Your task to perform on an android device: change notifications settings Image 0: 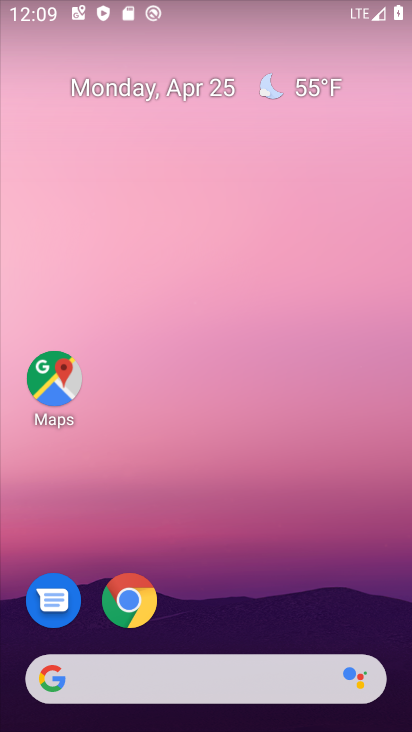
Step 0: drag from (165, 645) to (167, 168)
Your task to perform on an android device: change notifications settings Image 1: 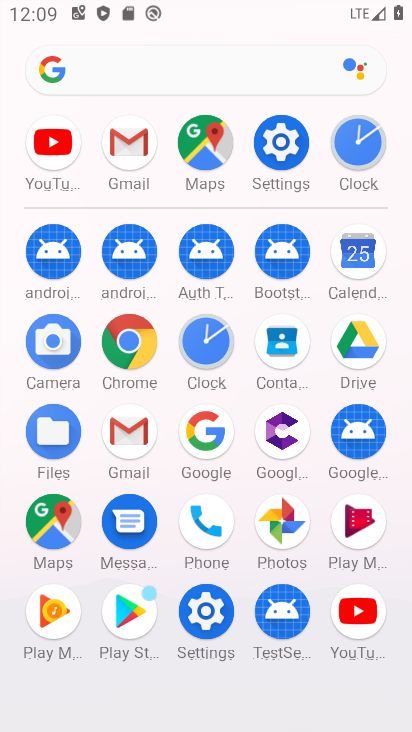
Step 1: click (273, 147)
Your task to perform on an android device: change notifications settings Image 2: 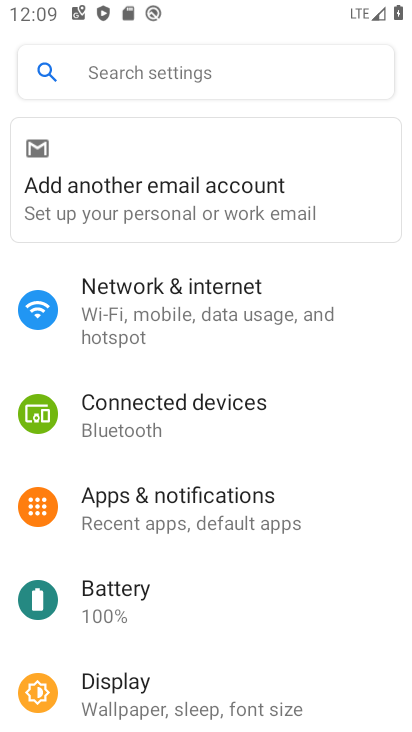
Step 2: click (158, 514)
Your task to perform on an android device: change notifications settings Image 3: 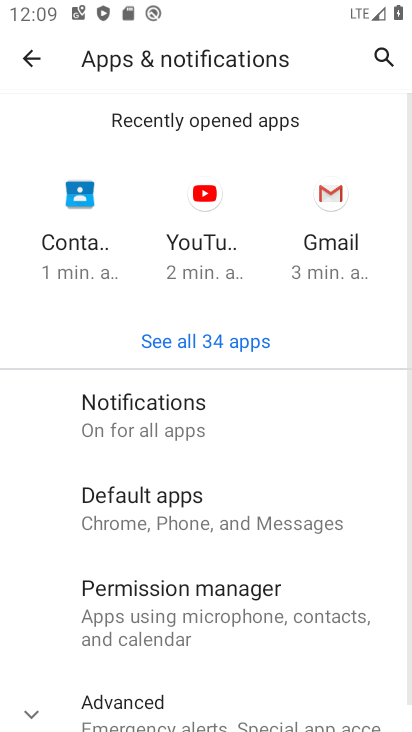
Step 3: click (149, 423)
Your task to perform on an android device: change notifications settings Image 4: 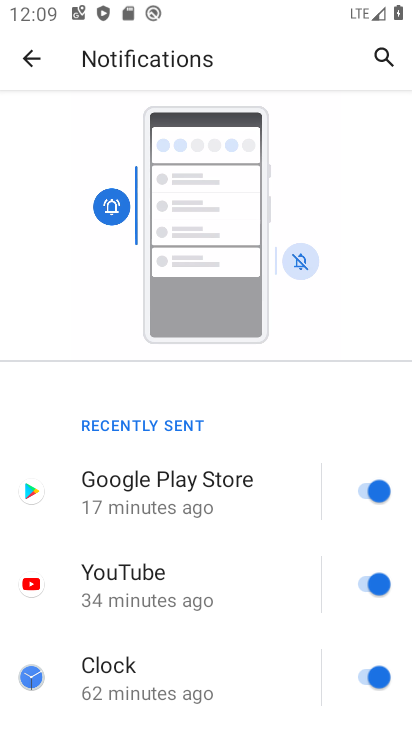
Step 4: drag from (148, 628) to (222, 42)
Your task to perform on an android device: change notifications settings Image 5: 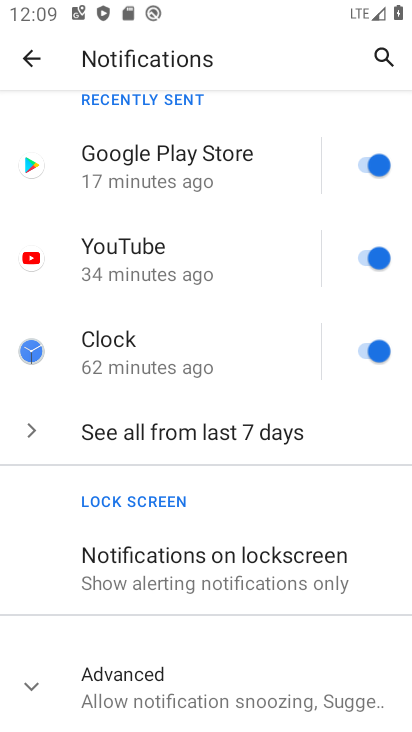
Step 5: click (110, 697)
Your task to perform on an android device: change notifications settings Image 6: 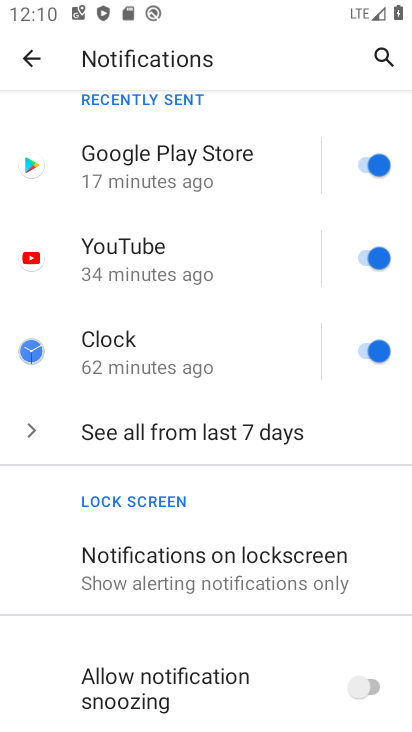
Step 6: drag from (110, 697) to (185, 241)
Your task to perform on an android device: change notifications settings Image 7: 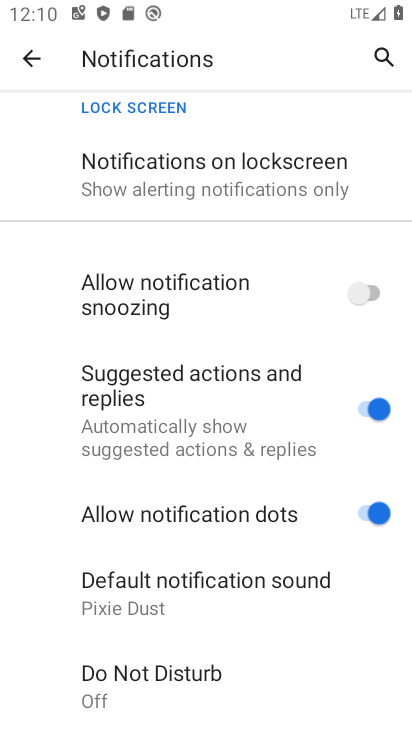
Step 7: click (374, 288)
Your task to perform on an android device: change notifications settings Image 8: 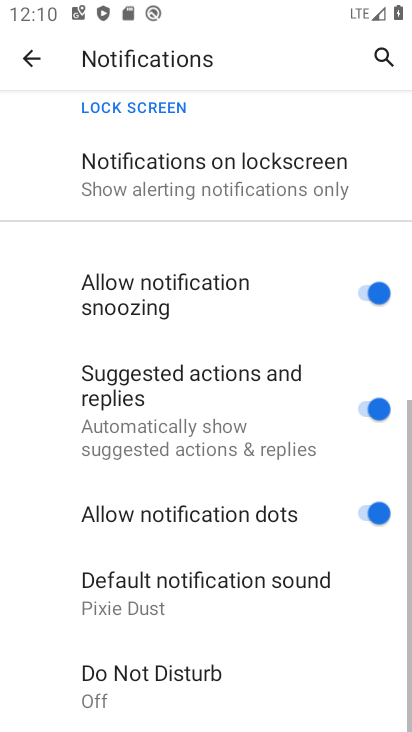
Step 8: click (372, 414)
Your task to perform on an android device: change notifications settings Image 9: 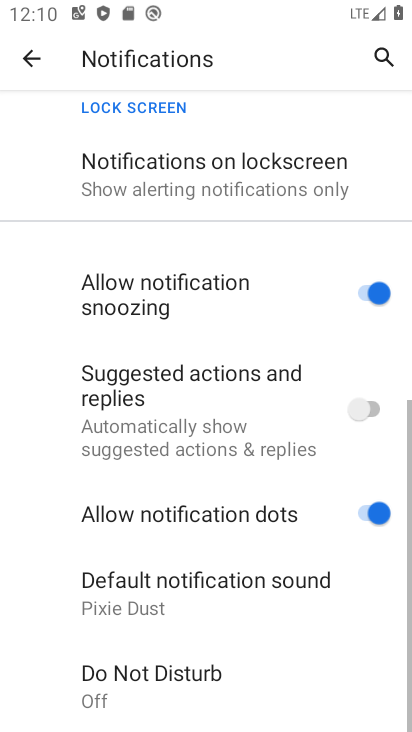
Step 9: click (378, 510)
Your task to perform on an android device: change notifications settings Image 10: 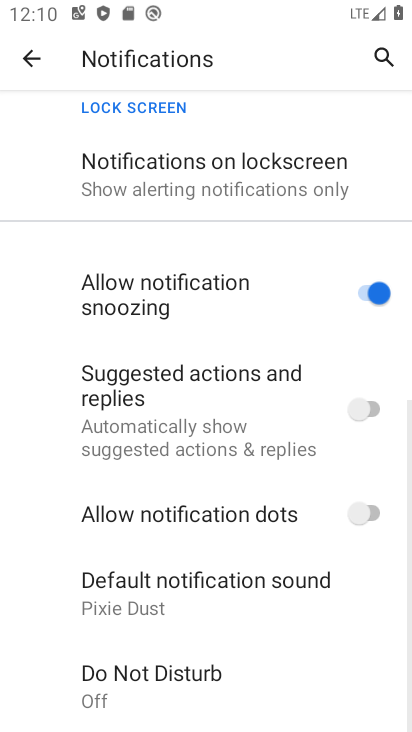
Step 10: task complete